Your task to perform on an android device: check android version Image 0: 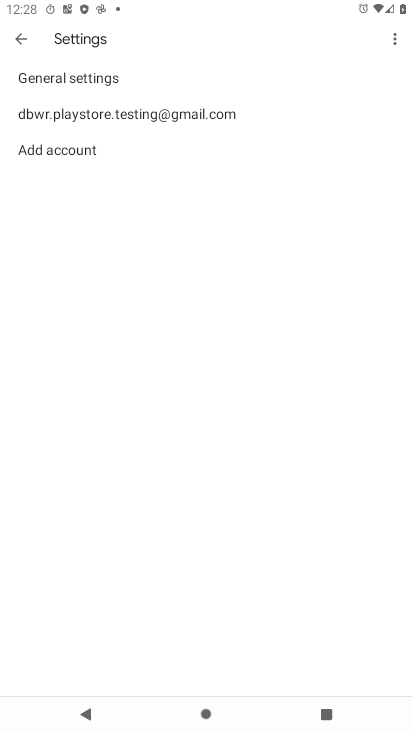
Step 0: press home button
Your task to perform on an android device: check android version Image 1: 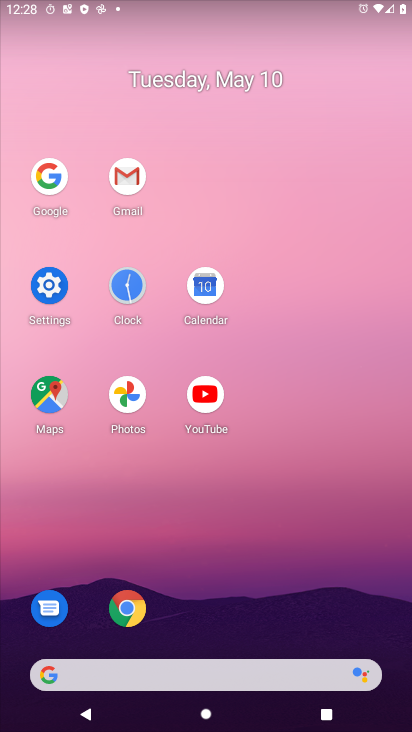
Step 1: click (44, 290)
Your task to perform on an android device: check android version Image 2: 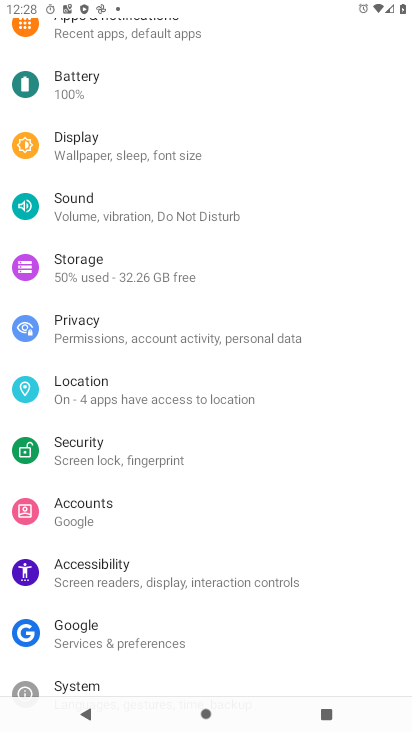
Step 2: drag from (240, 606) to (261, 168)
Your task to perform on an android device: check android version Image 3: 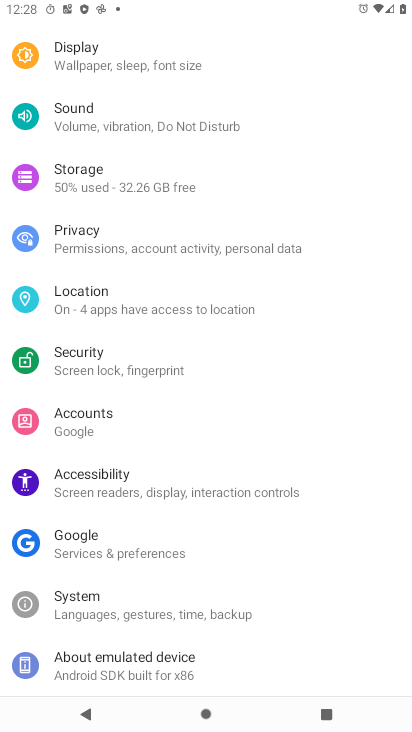
Step 3: click (200, 653)
Your task to perform on an android device: check android version Image 4: 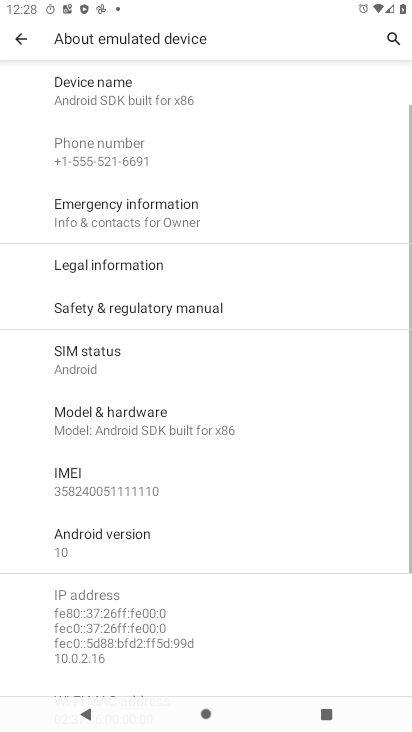
Step 4: task complete